Your task to perform on an android device: Search for sushi restaurants on Maps Image 0: 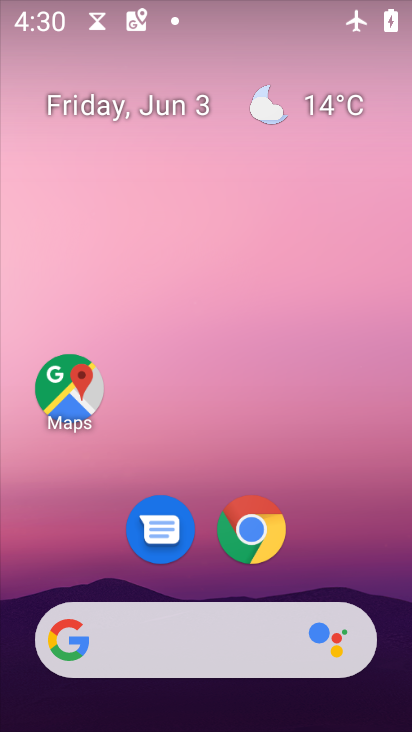
Step 0: click (291, 25)
Your task to perform on an android device: Search for sushi restaurants on Maps Image 1: 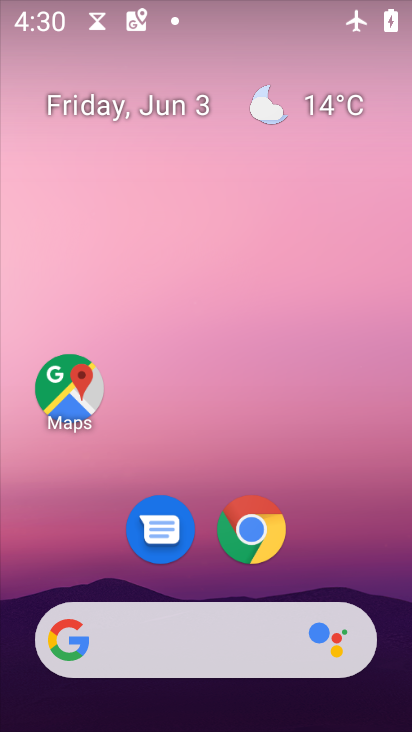
Step 1: click (328, 302)
Your task to perform on an android device: Search for sushi restaurants on Maps Image 2: 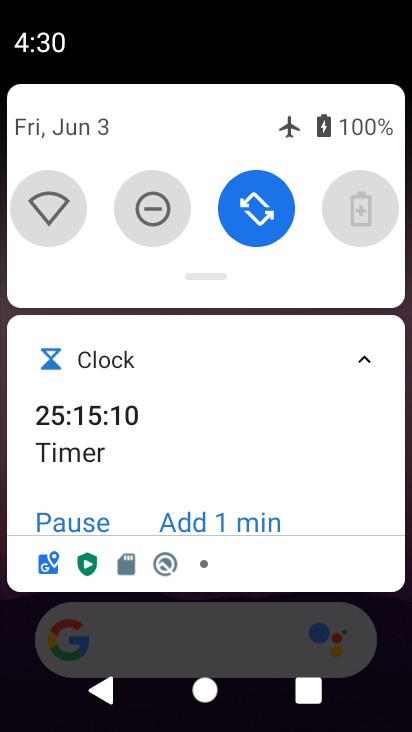
Step 2: drag from (188, 589) to (302, 0)
Your task to perform on an android device: Search for sushi restaurants on Maps Image 3: 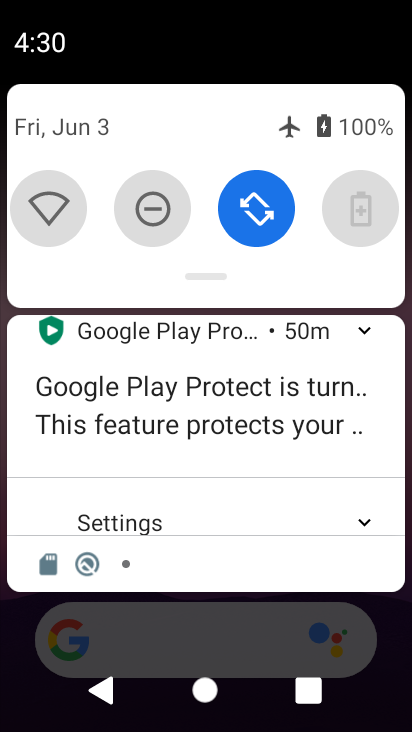
Step 3: drag from (233, 646) to (363, 12)
Your task to perform on an android device: Search for sushi restaurants on Maps Image 4: 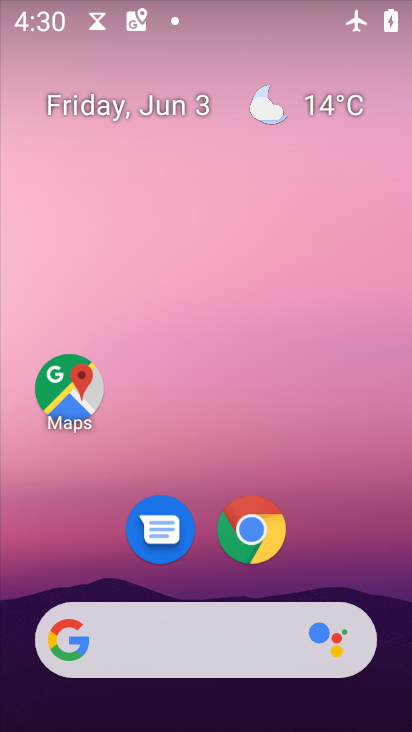
Step 4: drag from (310, 484) to (322, 2)
Your task to perform on an android device: Search for sushi restaurants on Maps Image 5: 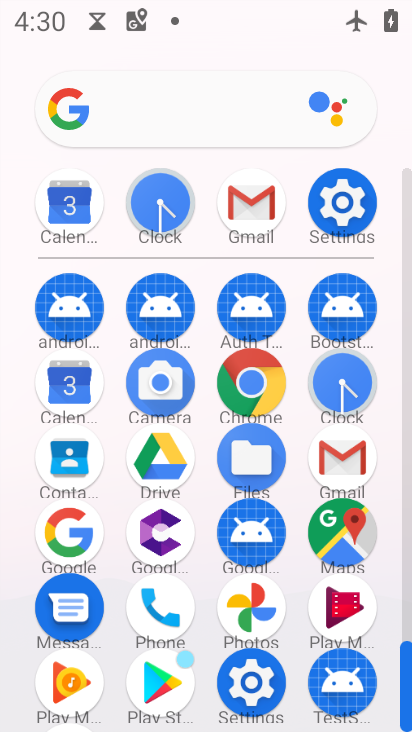
Step 5: click (355, 539)
Your task to perform on an android device: Search for sushi restaurants on Maps Image 6: 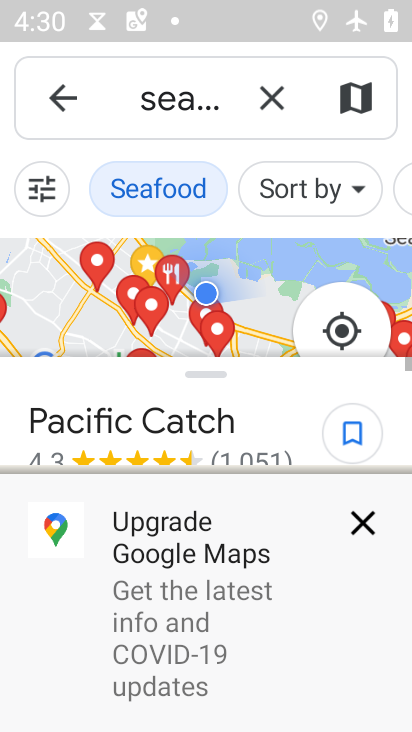
Step 6: click (275, 83)
Your task to perform on an android device: Search for sushi restaurants on Maps Image 7: 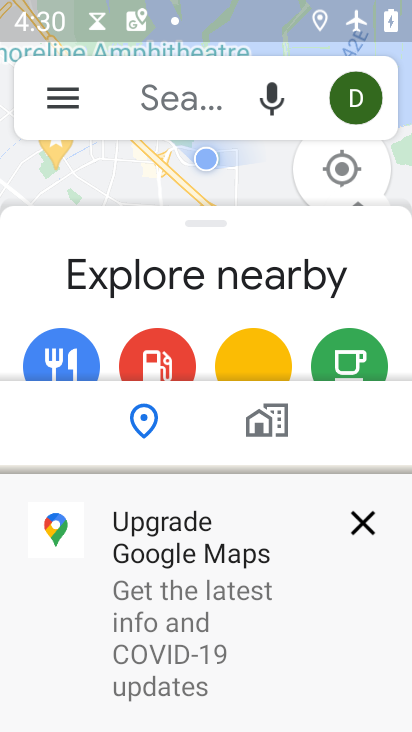
Step 7: click (229, 105)
Your task to perform on an android device: Search for sushi restaurants on Maps Image 8: 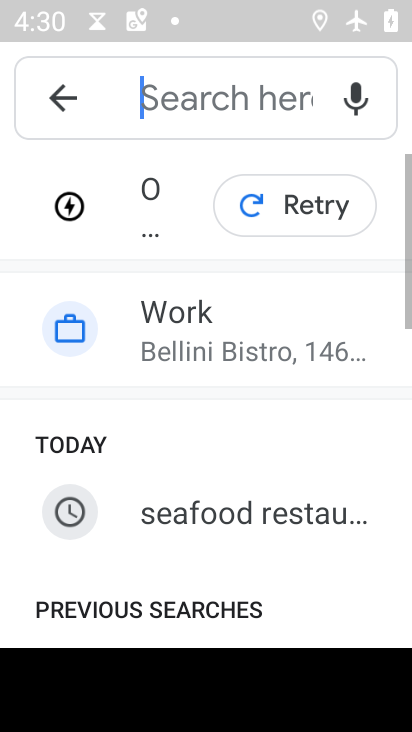
Step 8: drag from (217, 550) to (256, 223)
Your task to perform on an android device: Search for sushi restaurants on Maps Image 9: 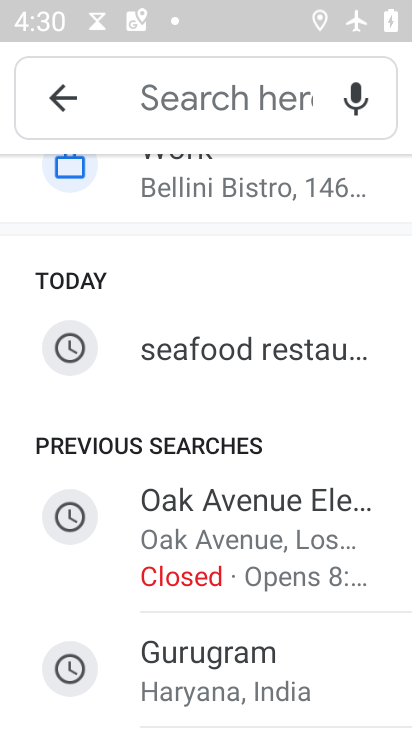
Step 9: drag from (211, 594) to (211, 218)
Your task to perform on an android device: Search for sushi restaurants on Maps Image 10: 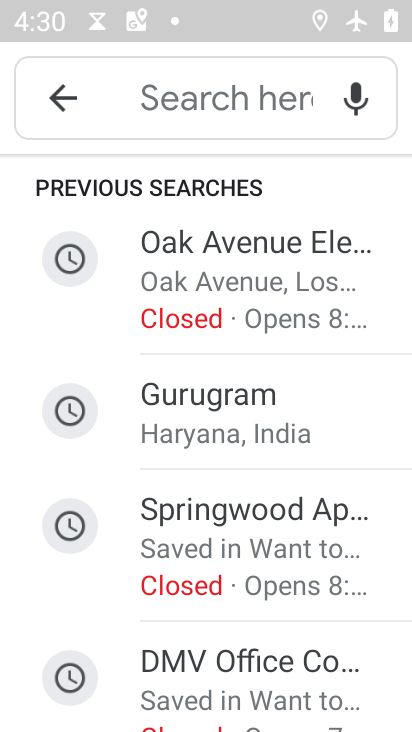
Step 10: drag from (222, 332) to (211, 715)
Your task to perform on an android device: Search for sushi restaurants on Maps Image 11: 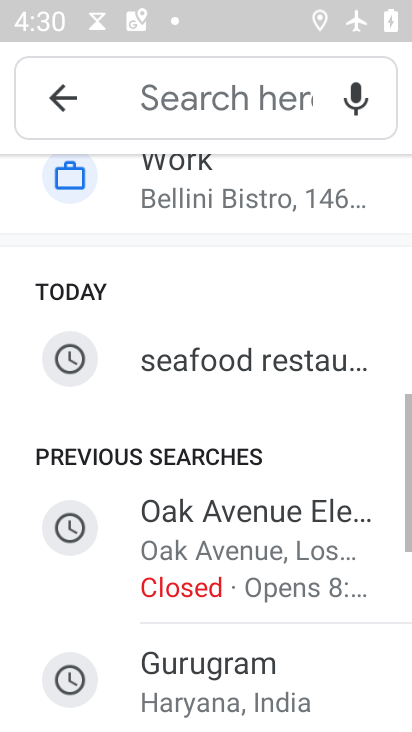
Step 11: click (208, 87)
Your task to perform on an android device: Search for sushi restaurants on Maps Image 12: 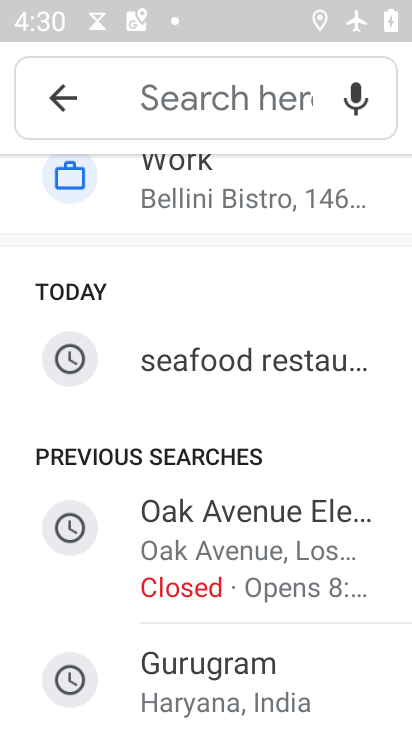
Step 12: click (217, 94)
Your task to perform on an android device: Search for sushi restaurants on Maps Image 13: 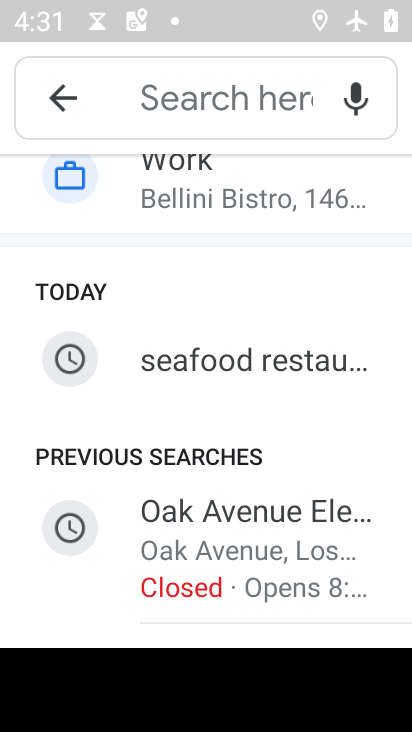
Step 13: type "sushi resturents"
Your task to perform on an android device: Search for sushi restaurants on Maps Image 14: 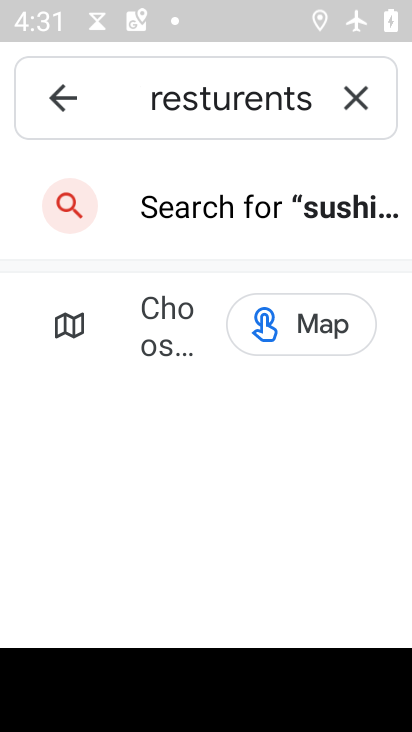
Step 14: click (326, 216)
Your task to perform on an android device: Search for sushi restaurants on Maps Image 15: 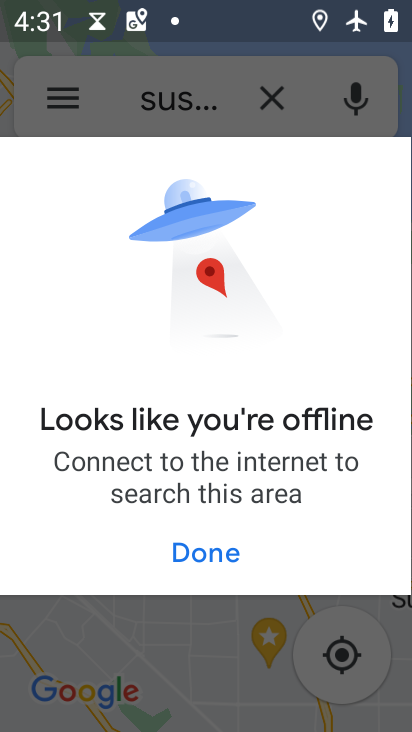
Step 15: task complete